Your task to perform on an android device: Open network settings Image 0: 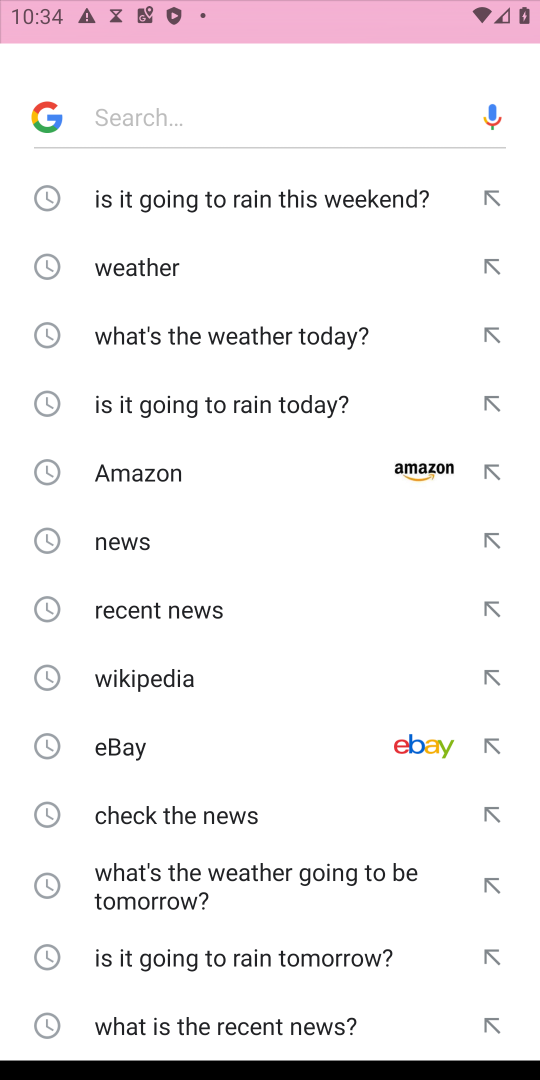
Step 0: press home button
Your task to perform on an android device: Open network settings Image 1: 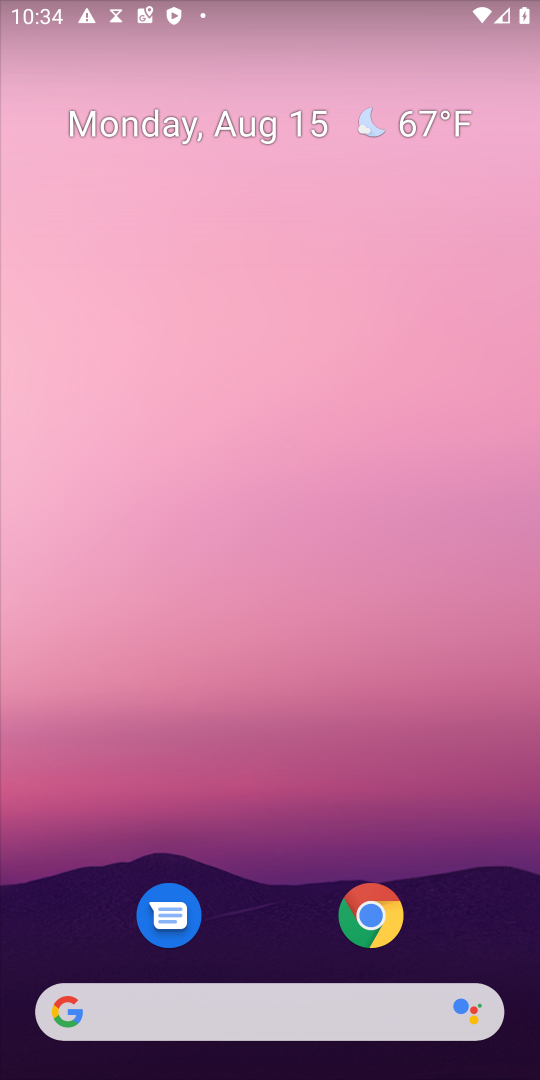
Step 1: press home button
Your task to perform on an android device: Open network settings Image 2: 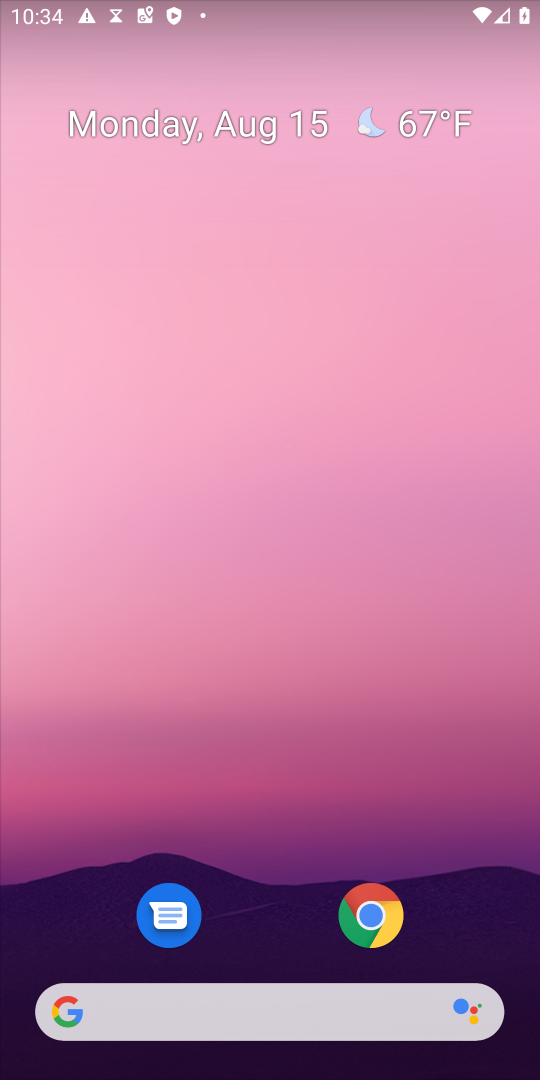
Step 2: drag from (240, 953) to (311, 112)
Your task to perform on an android device: Open network settings Image 3: 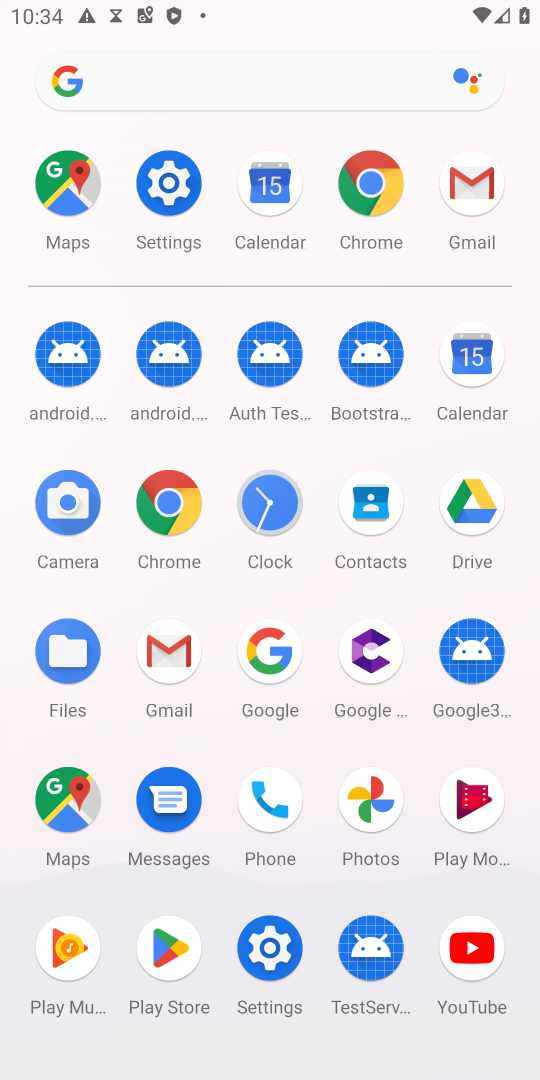
Step 3: click (279, 942)
Your task to perform on an android device: Open network settings Image 4: 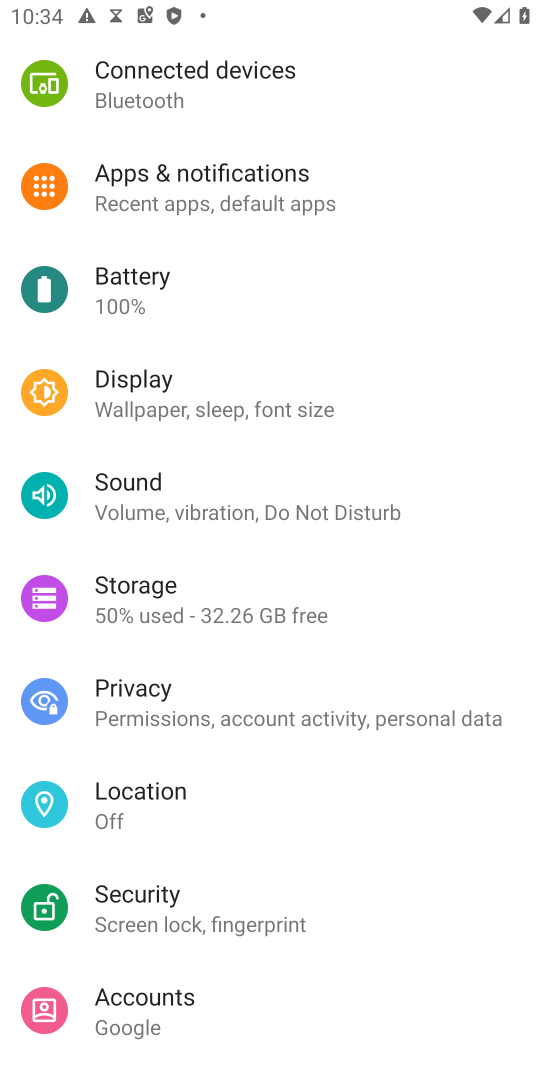
Step 4: drag from (169, 133) to (138, 636)
Your task to perform on an android device: Open network settings Image 5: 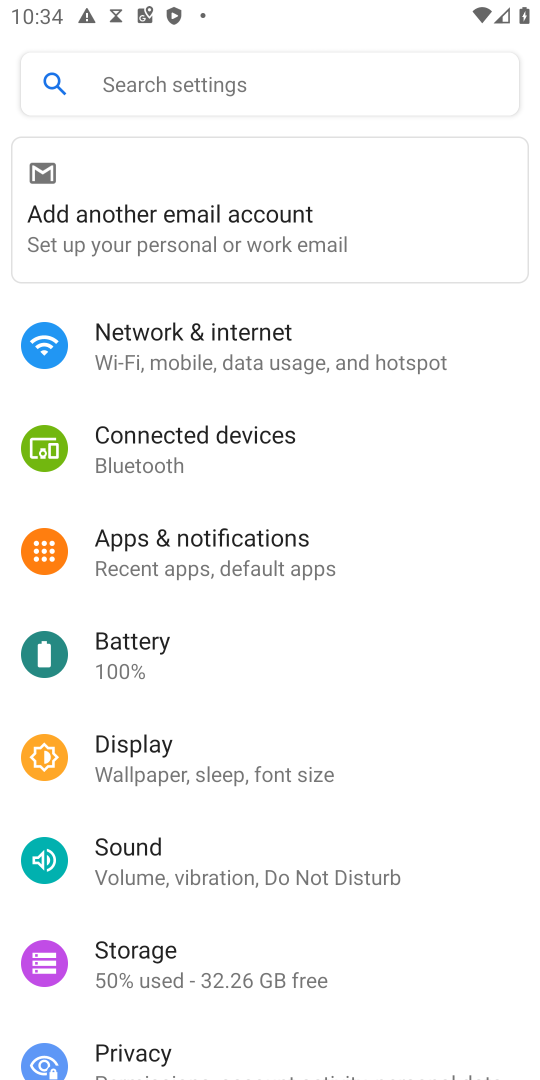
Step 5: click (177, 344)
Your task to perform on an android device: Open network settings Image 6: 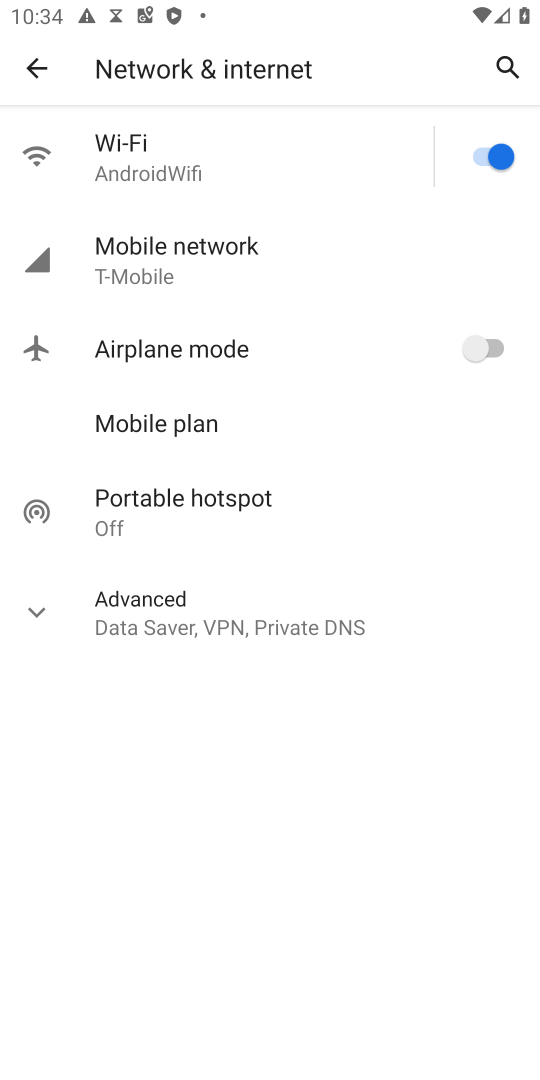
Step 6: task complete